Your task to perform on an android device: open a new tab in the chrome app Image 0: 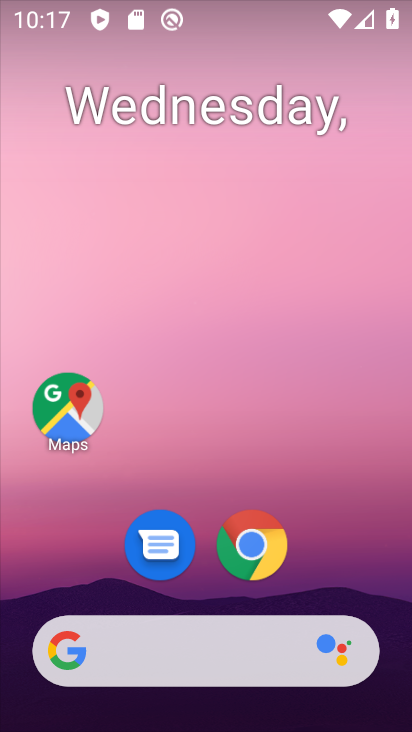
Step 0: click (265, 565)
Your task to perform on an android device: open a new tab in the chrome app Image 1: 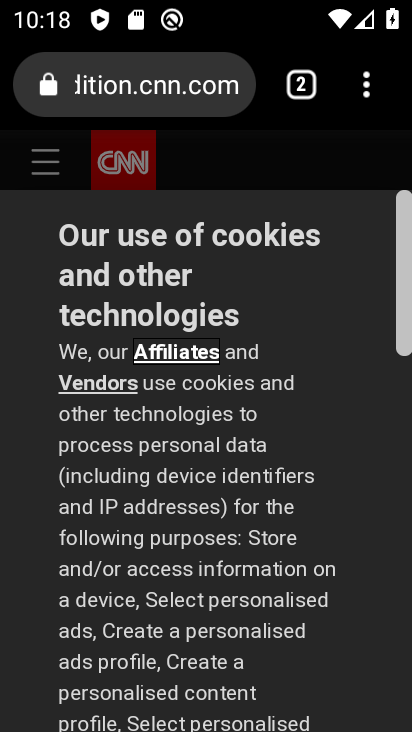
Step 1: click (307, 90)
Your task to perform on an android device: open a new tab in the chrome app Image 2: 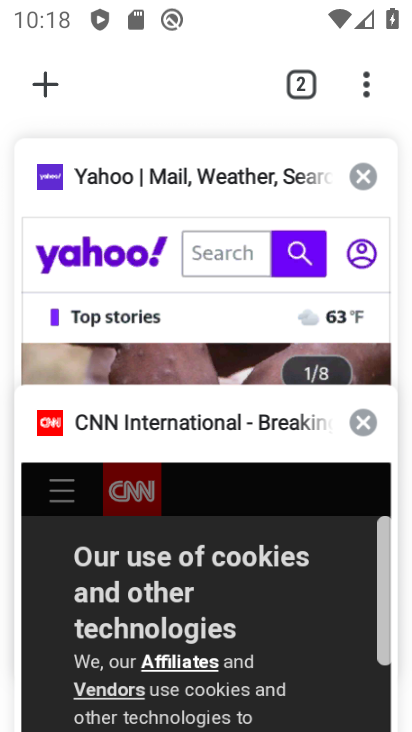
Step 2: click (39, 89)
Your task to perform on an android device: open a new tab in the chrome app Image 3: 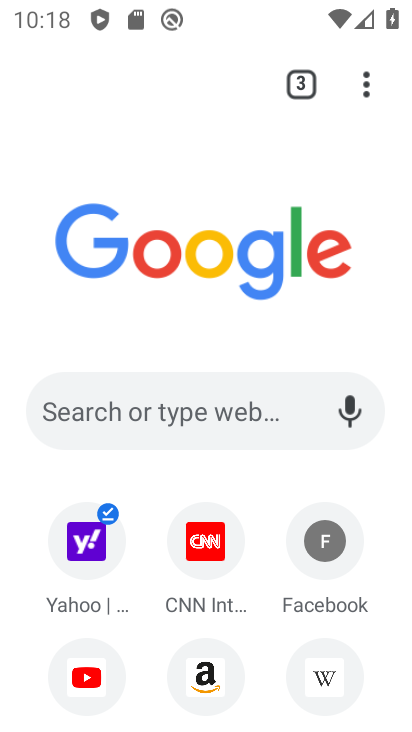
Step 3: press home button
Your task to perform on an android device: open a new tab in the chrome app Image 4: 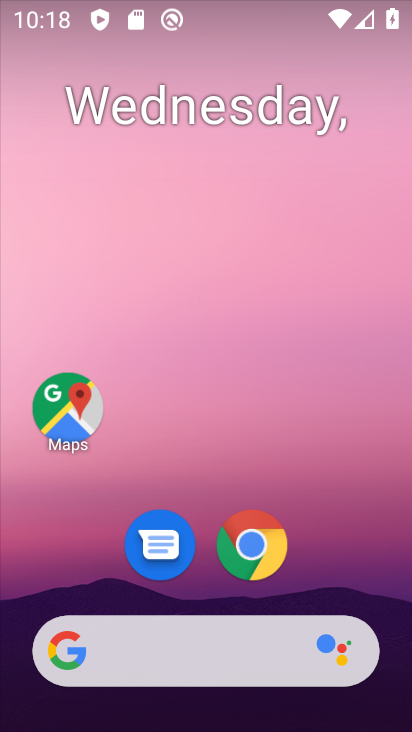
Step 4: click (259, 542)
Your task to perform on an android device: open a new tab in the chrome app Image 5: 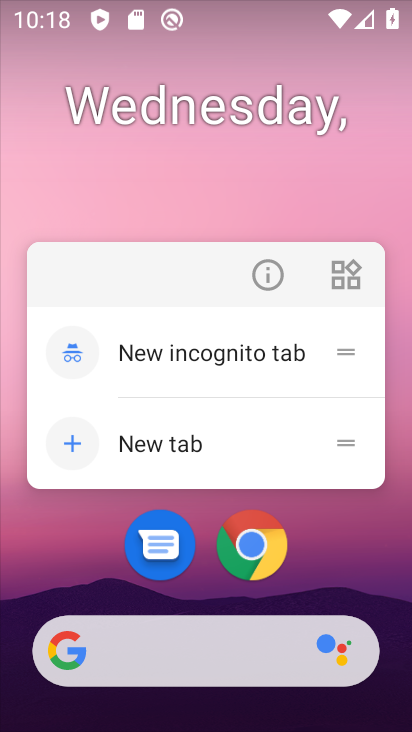
Step 5: click (257, 538)
Your task to perform on an android device: open a new tab in the chrome app Image 6: 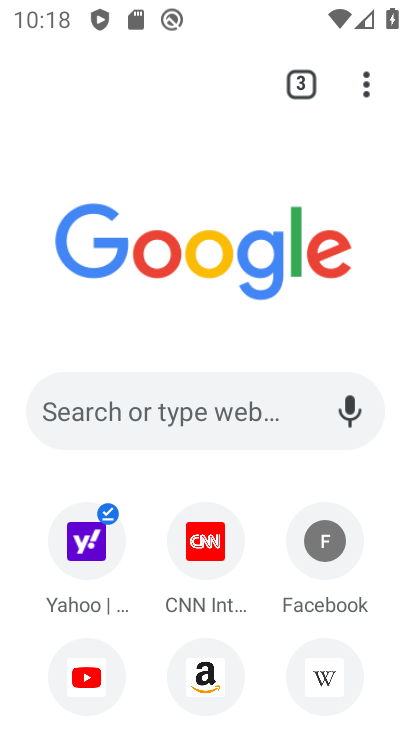
Step 6: task complete